Your task to perform on an android device: Open the Play Movies app and select the watchlist tab. Image 0: 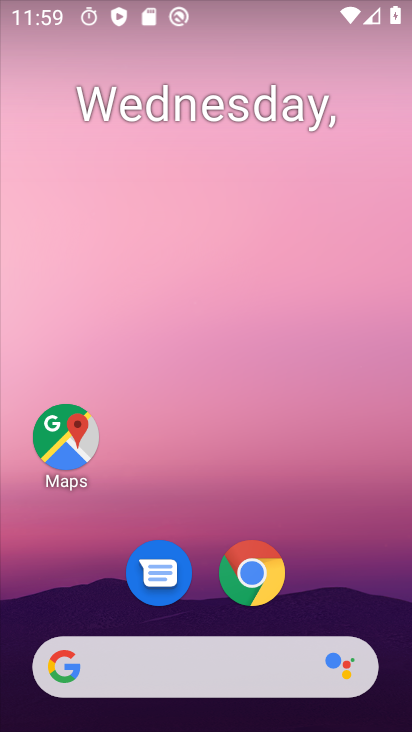
Step 0: click (361, 232)
Your task to perform on an android device: Open the Play Movies app and select the watchlist tab. Image 1: 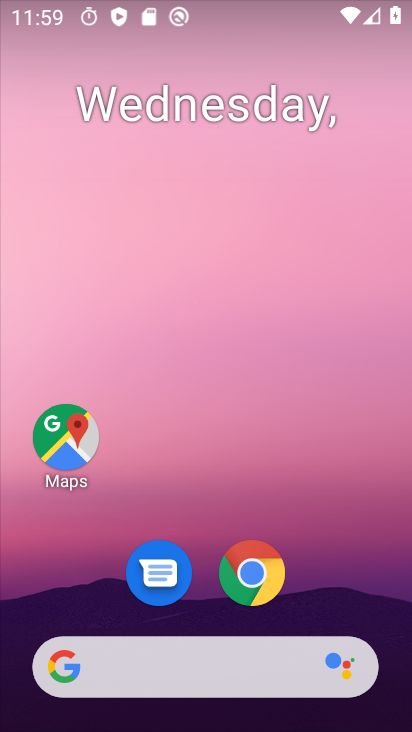
Step 1: drag from (382, 626) to (374, 356)
Your task to perform on an android device: Open the Play Movies app and select the watchlist tab. Image 2: 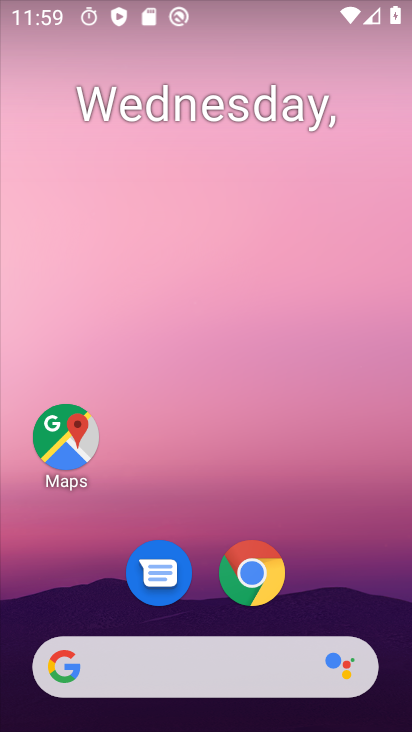
Step 2: click (371, 211)
Your task to perform on an android device: Open the Play Movies app and select the watchlist tab. Image 3: 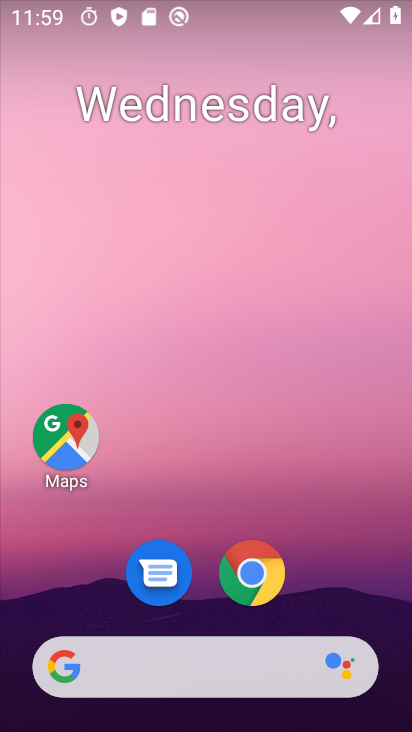
Step 3: click (345, 179)
Your task to perform on an android device: Open the Play Movies app and select the watchlist tab. Image 4: 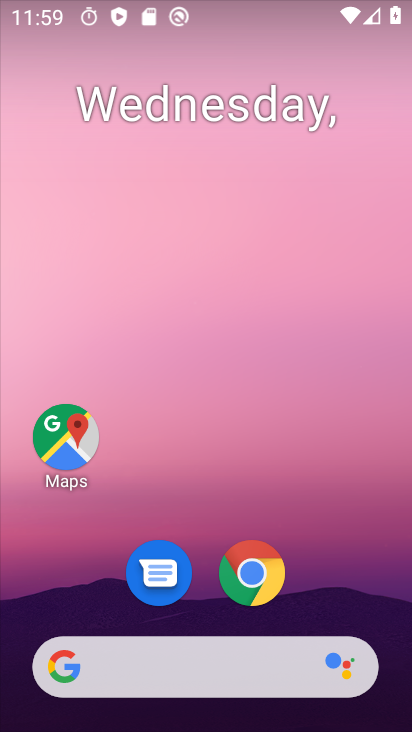
Step 4: drag from (388, 620) to (342, 206)
Your task to perform on an android device: Open the Play Movies app and select the watchlist tab. Image 5: 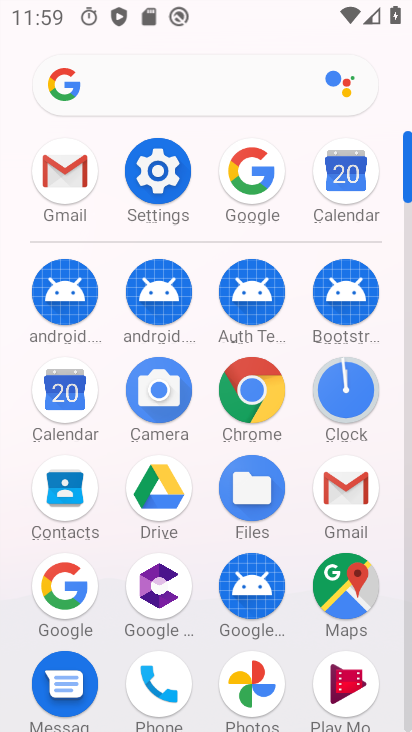
Step 5: click (342, 684)
Your task to perform on an android device: Open the Play Movies app and select the watchlist tab. Image 6: 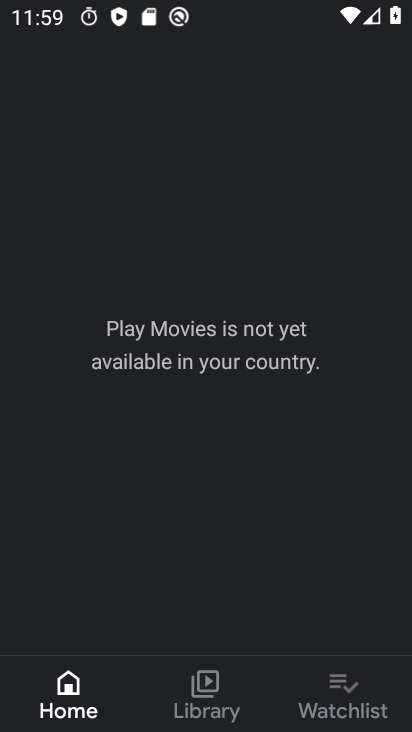
Step 6: click (358, 685)
Your task to perform on an android device: Open the Play Movies app and select the watchlist tab. Image 7: 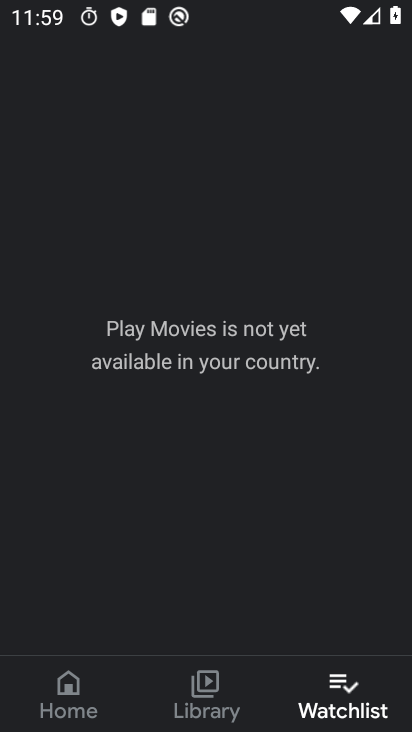
Step 7: task complete